Your task to perform on an android device: open sync settings in chrome Image 0: 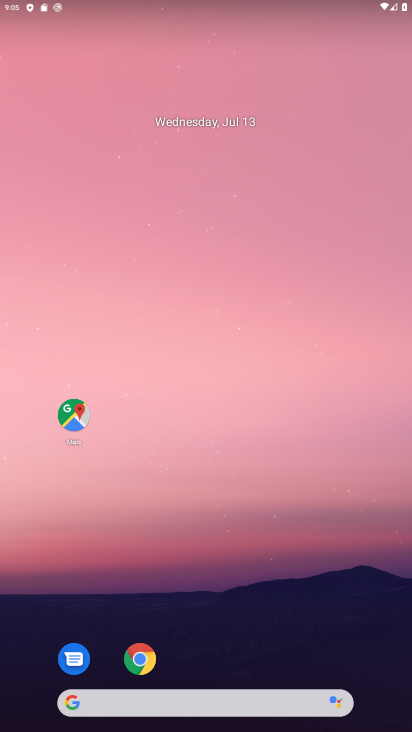
Step 0: click (142, 662)
Your task to perform on an android device: open sync settings in chrome Image 1: 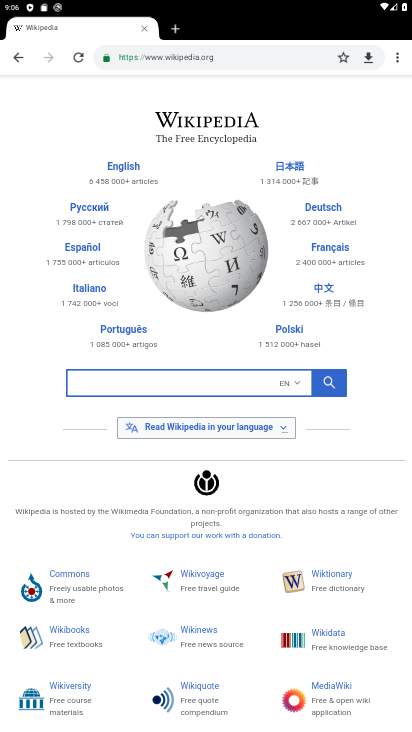
Step 1: click (398, 62)
Your task to perform on an android device: open sync settings in chrome Image 2: 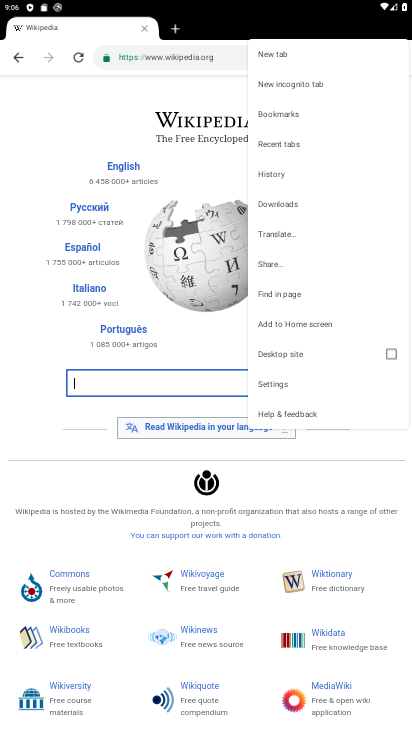
Step 2: click (277, 385)
Your task to perform on an android device: open sync settings in chrome Image 3: 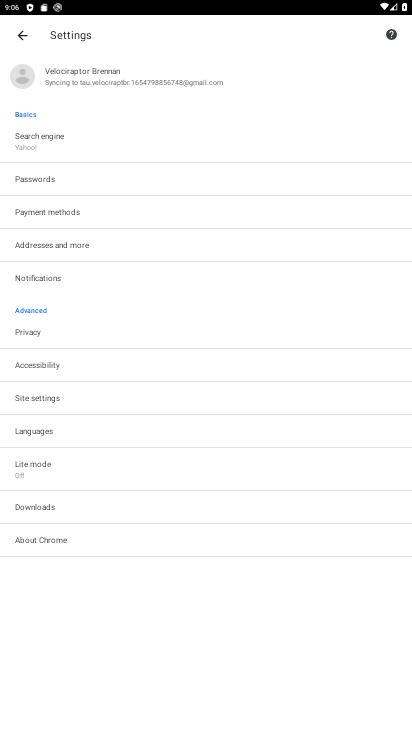
Step 3: click (60, 70)
Your task to perform on an android device: open sync settings in chrome Image 4: 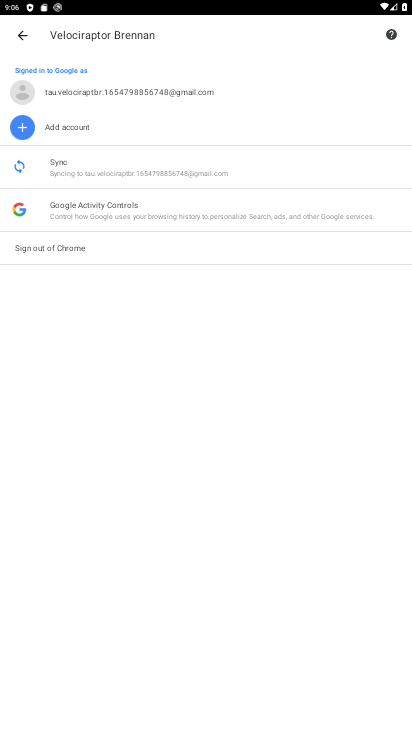
Step 4: click (61, 168)
Your task to perform on an android device: open sync settings in chrome Image 5: 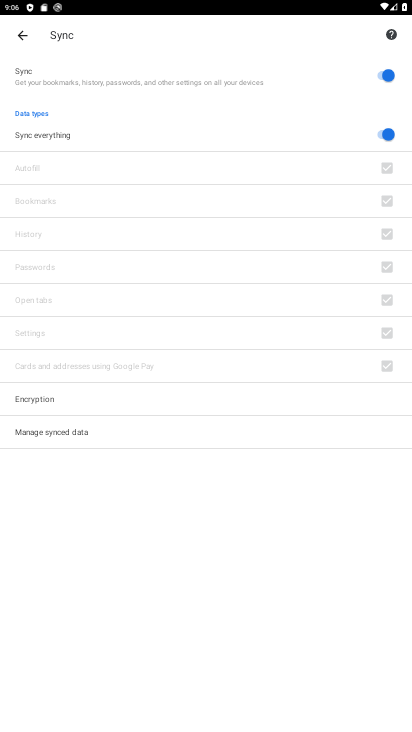
Step 5: task complete